Your task to perform on an android device: find snoozed emails in the gmail app Image 0: 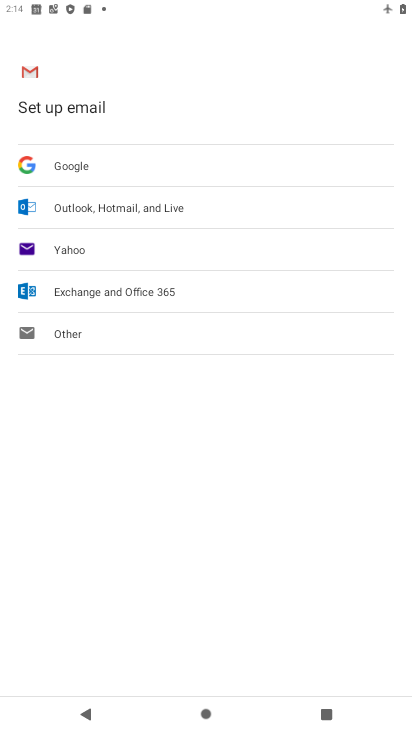
Step 0: press home button
Your task to perform on an android device: find snoozed emails in the gmail app Image 1: 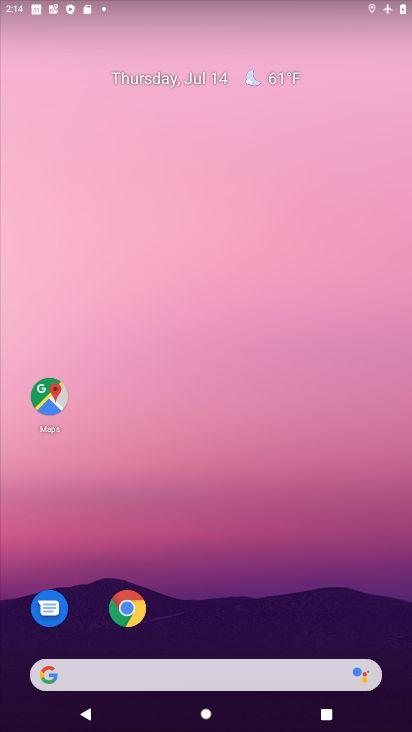
Step 1: drag from (242, 672) to (342, 270)
Your task to perform on an android device: find snoozed emails in the gmail app Image 2: 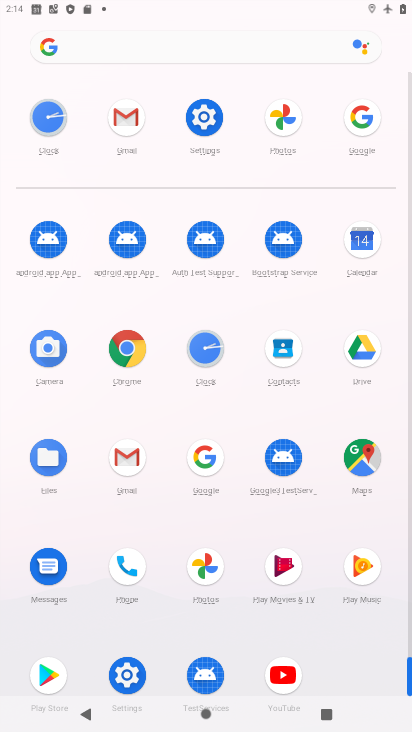
Step 2: click (122, 118)
Your task to perform on an android device: find snoozed emails in the gmail app Image 3: 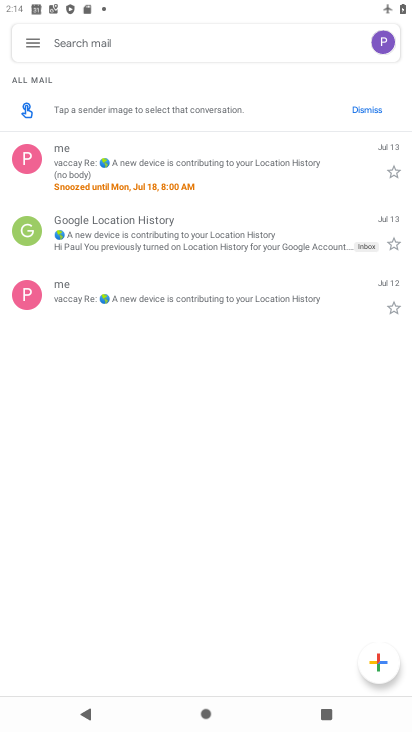
Step 3: task complete